Your task to perform on an android device: When is my next appointment? Image 0: 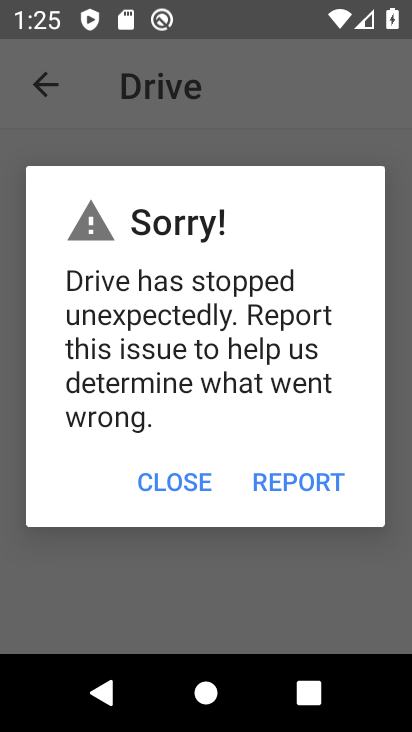
Step 0: press home button
Your task to perform on an android device: When is my next appointment? Image 1: 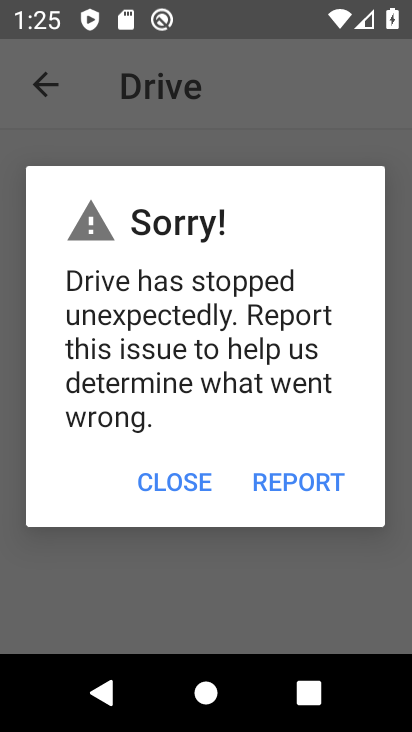
Step 1: press home button
Your task to perform on an android device: When is my next appointment? Image 2: 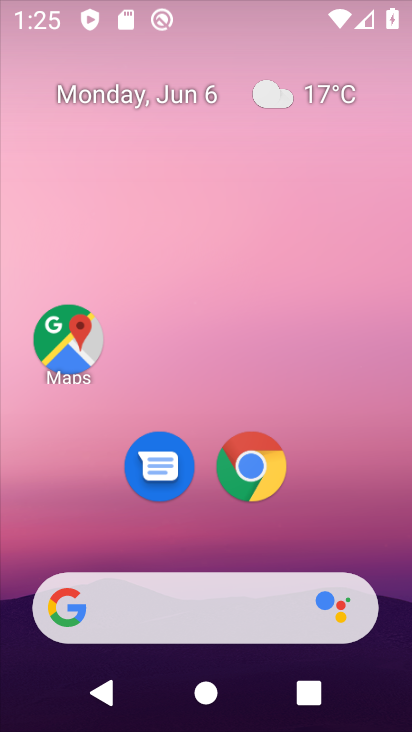
Step 2: press home button
Your task to perform on an android device: When is my next appointment? Image 3: 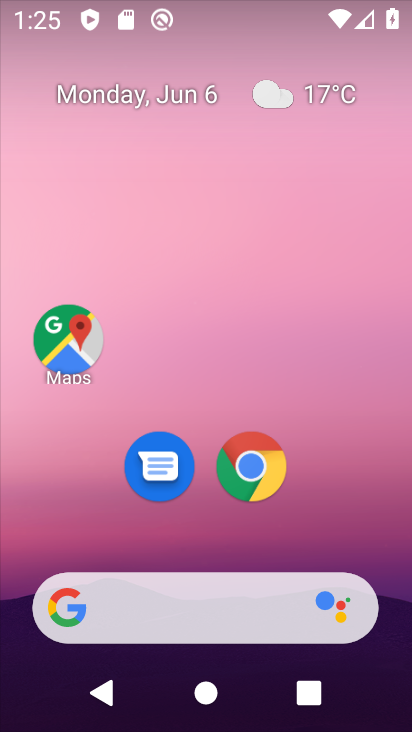
Step 3: press home button
Your task to perform on an android device: When is my next appointment? Image 4: 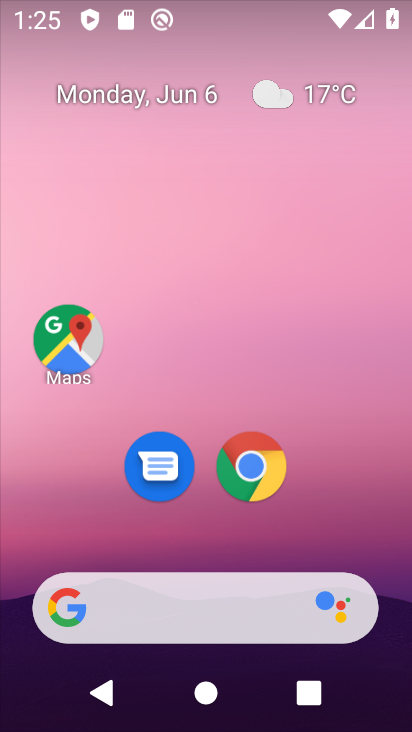
Step 4: drag from (321, 528) to (291, 130)
Your task to perform on an android device: When is my next appointment? Image 5: 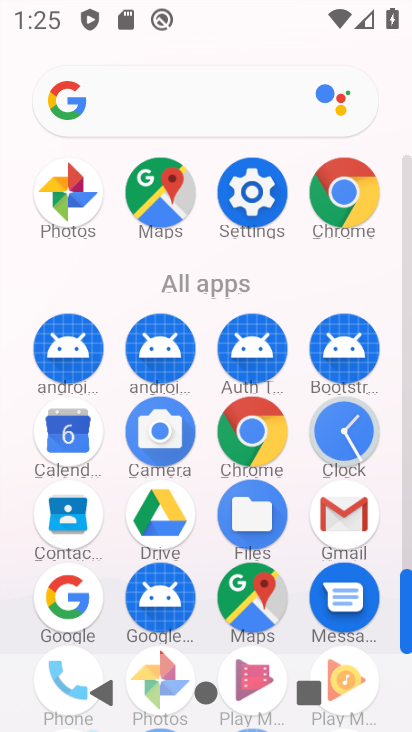
Step 5: click (72, 448)
Your task to perform on an android device: When is my next appointment? Image 6: 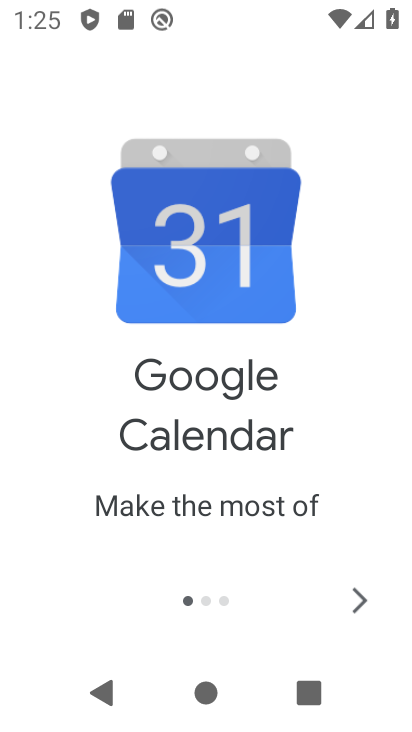
Step 6: click (358, 604)
Your task to perform on an android device: When is my next appointment? Image 7: 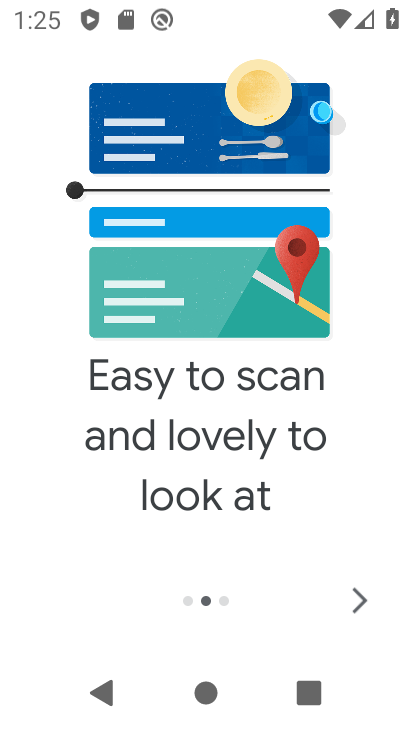
Step 7: click (358, 603)
Your task to perform on an android device: When is my next appointment? Image 8: 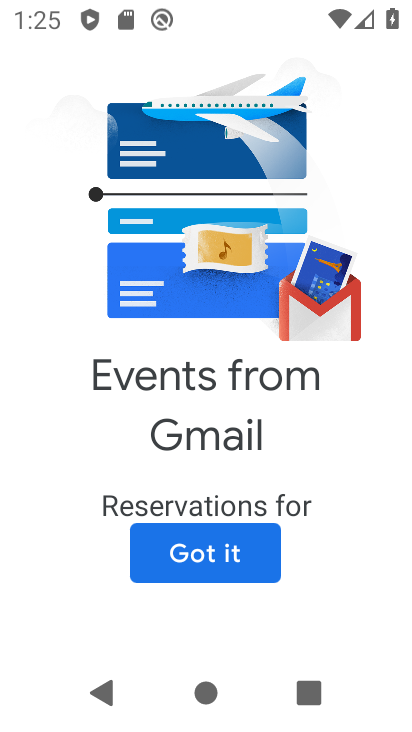
Step 8: click (208, 555)
Your task to perform on an android device: When is my next appointment? Image 9: 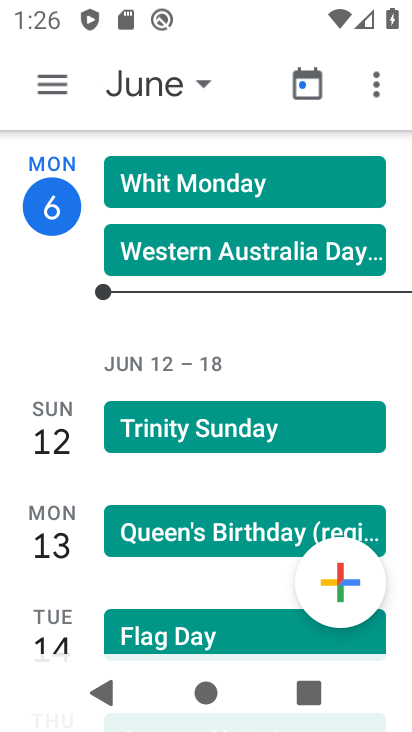
Step 9: click (54, 73)
Your task to perform on an android device: When is my next appointment? Image 10: 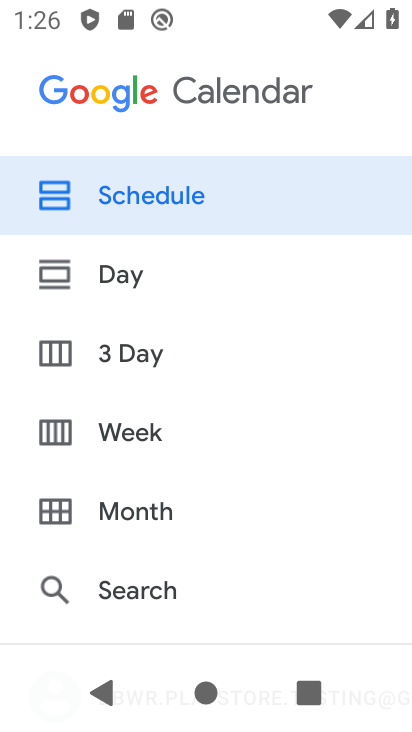
Step 10: drag from (264, 552) to (246, 508)
Your task to perform on an android device: When is my next appointment? Image 11: 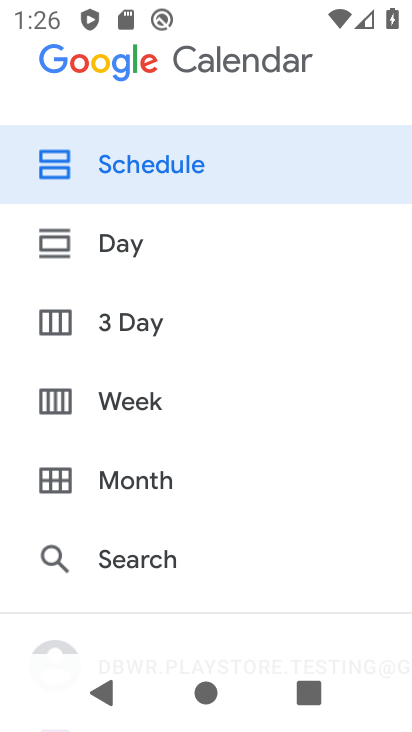
Step 11: click (162, 169)
Your task to perform on an android device: When is my next appointment? Image 12: 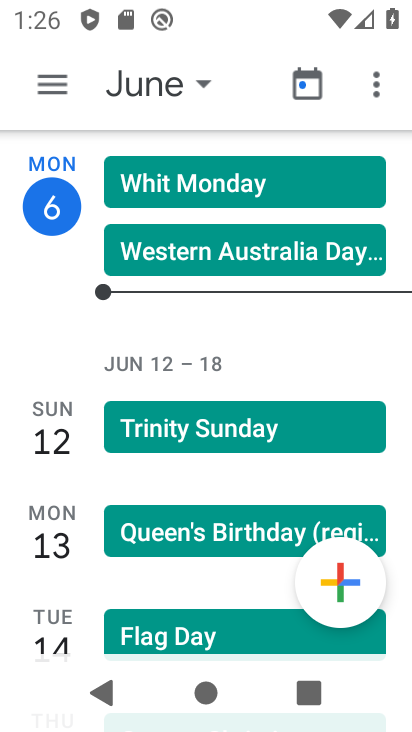
Step 12: task complete